Your task to perform on an android device: turn off smart reply in the gmail app Image 0: 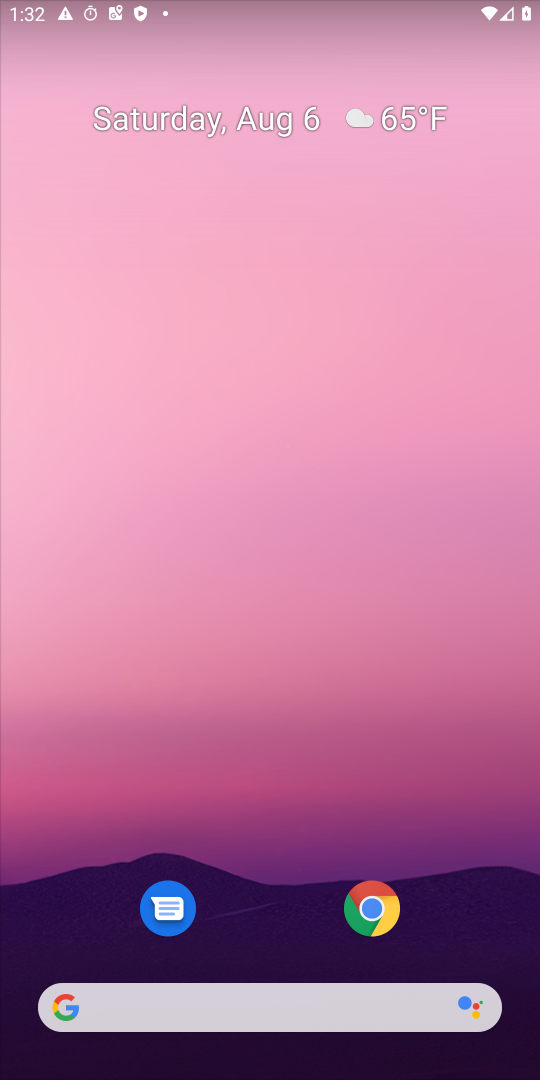
Step 0: click (324, 156)
Your task to perform on an android device: turn off smart reply in the gmail app Image 1: 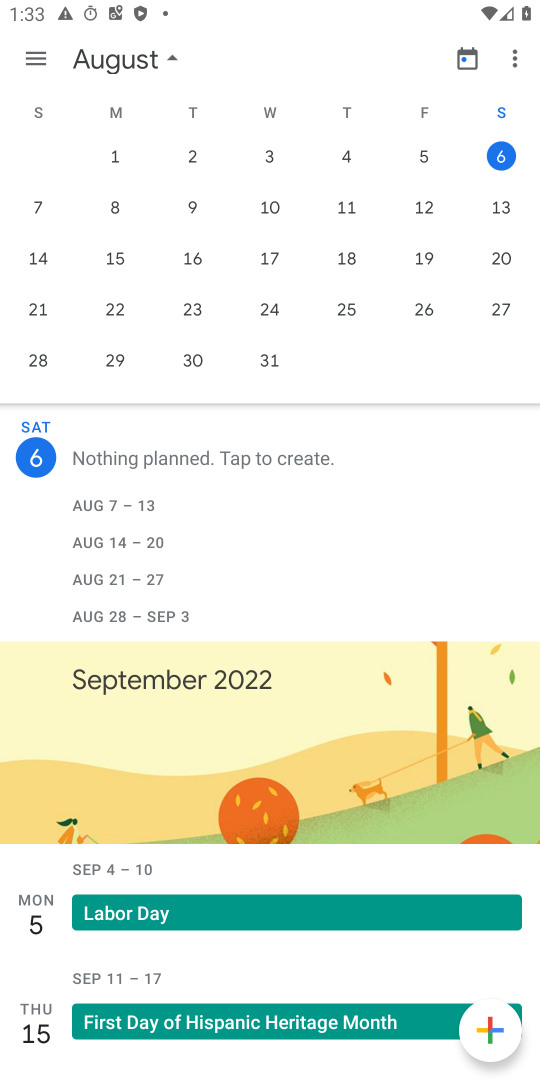
Step 1: press home button
Your task to perform on an android device: turn off smart reply in the gmail app Image 2: 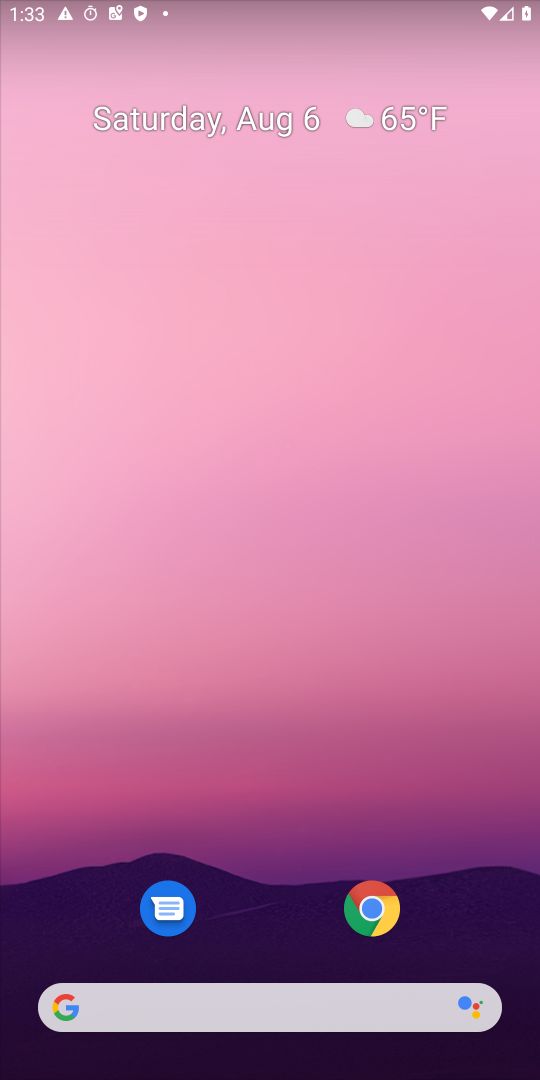
Step 2: drag from (295, 767) to (330, 134)
Your task to perform on an android device: turn off smart reply in the gmail app Image 3: 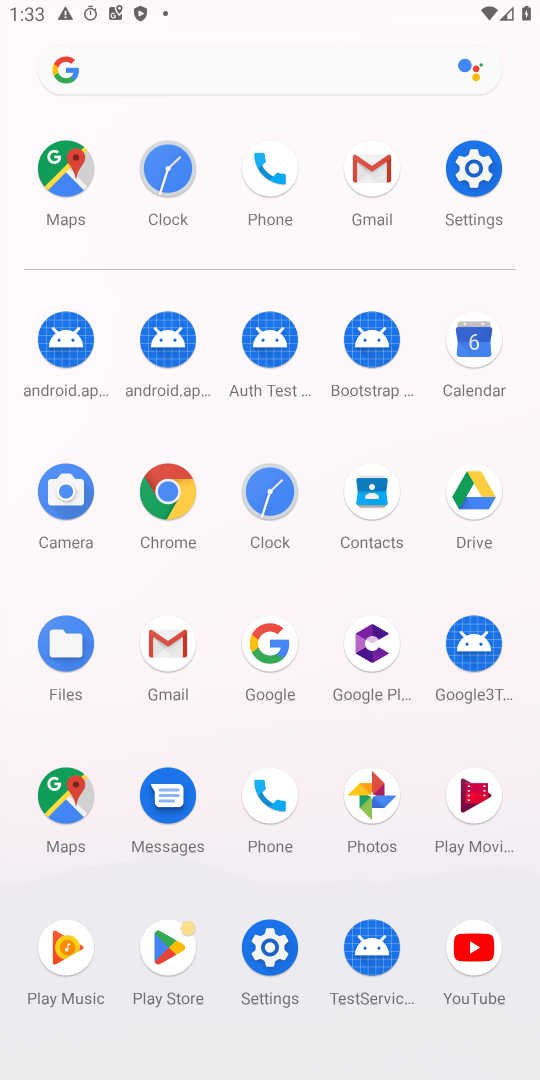
Step 3: click (366, 185)
Your task to perform on an android device: turn off smart reply in the gmail app Image 4: 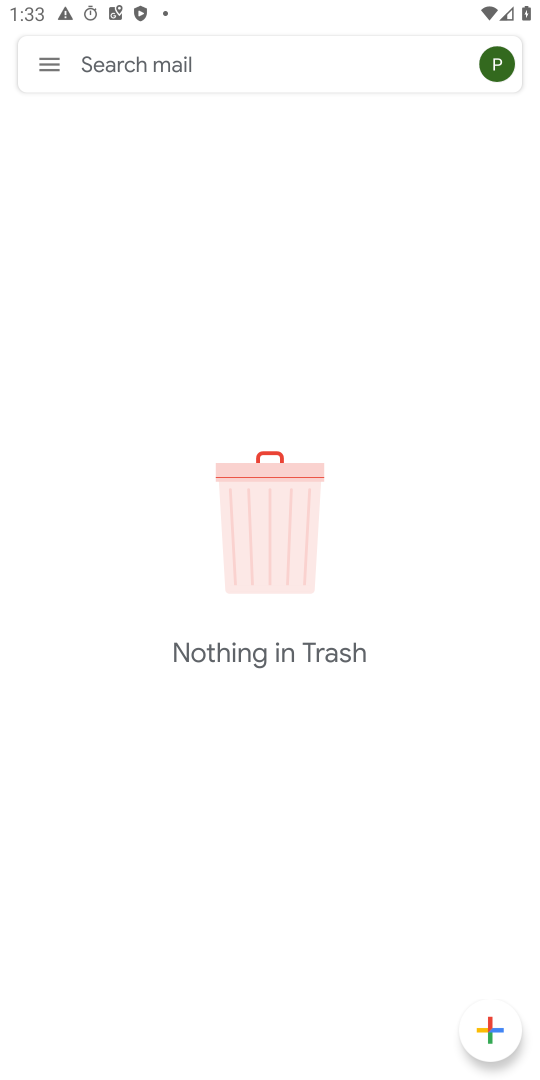
Step 4: click (37, 63)
Your task to perform on an android device: turn off smart reply in the gmail app Image 5: 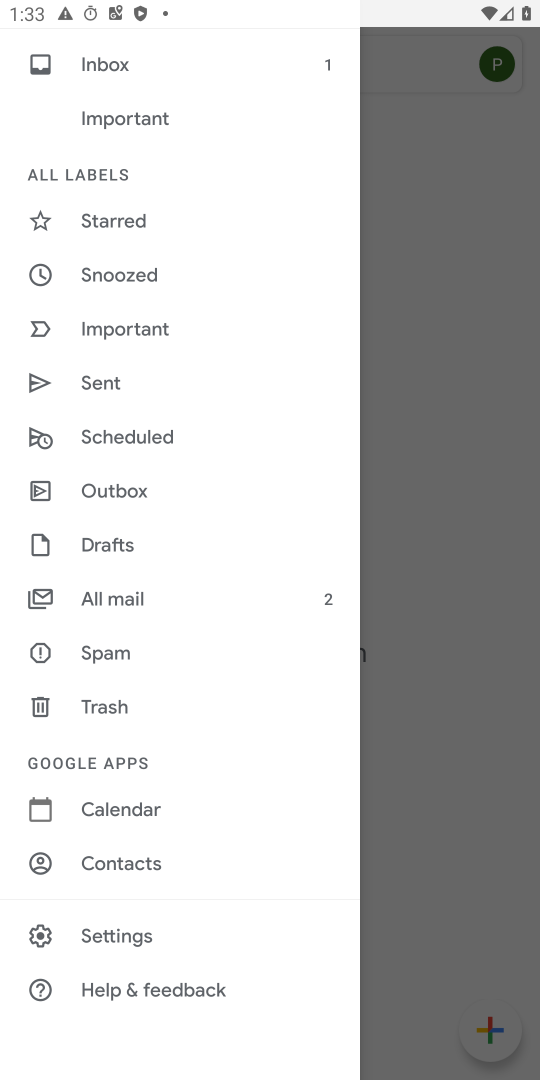
Step 5: click (130, 928)
Your task to perform on an android device: turn off smart reply in the gmail app Image 6: 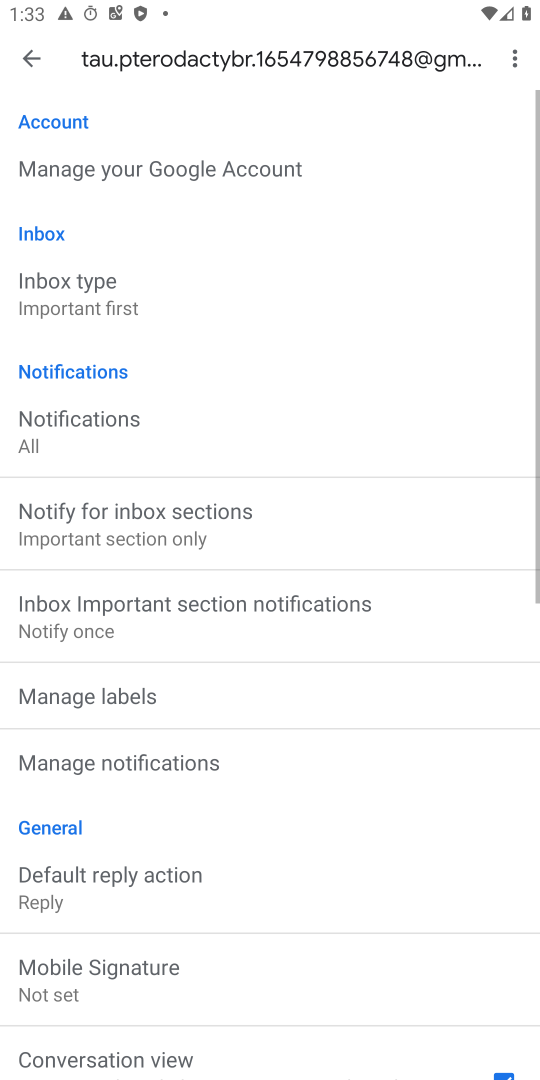
Step 6: drag from (130, 928) to (98, 607)
Your task to perform on an android device: turn off smart reply in the gmail app Image 7: 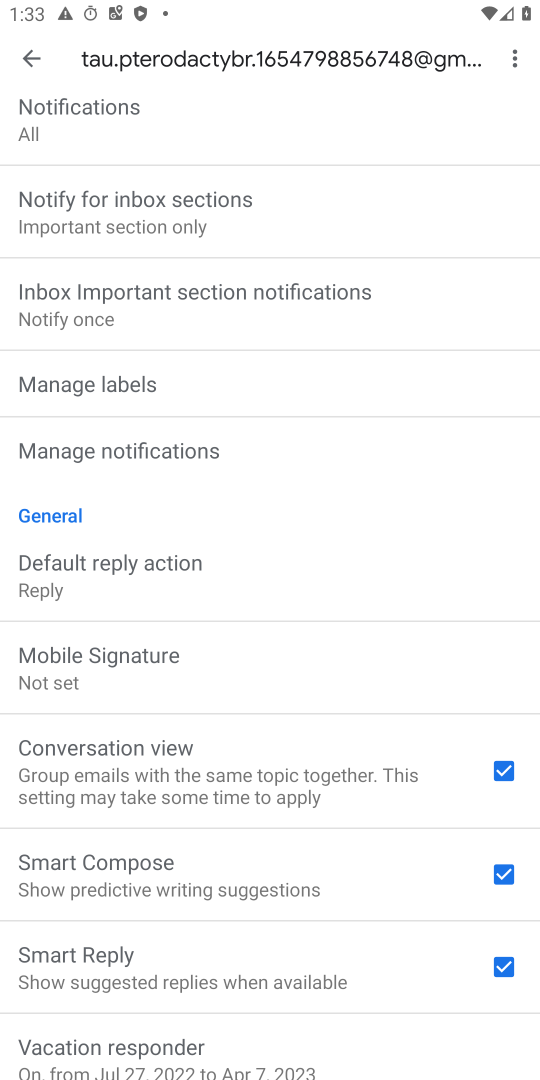
Step 7: click (457, 981)
Your task to perform on an android device: turn off smart reply in the gmail app Image 8: 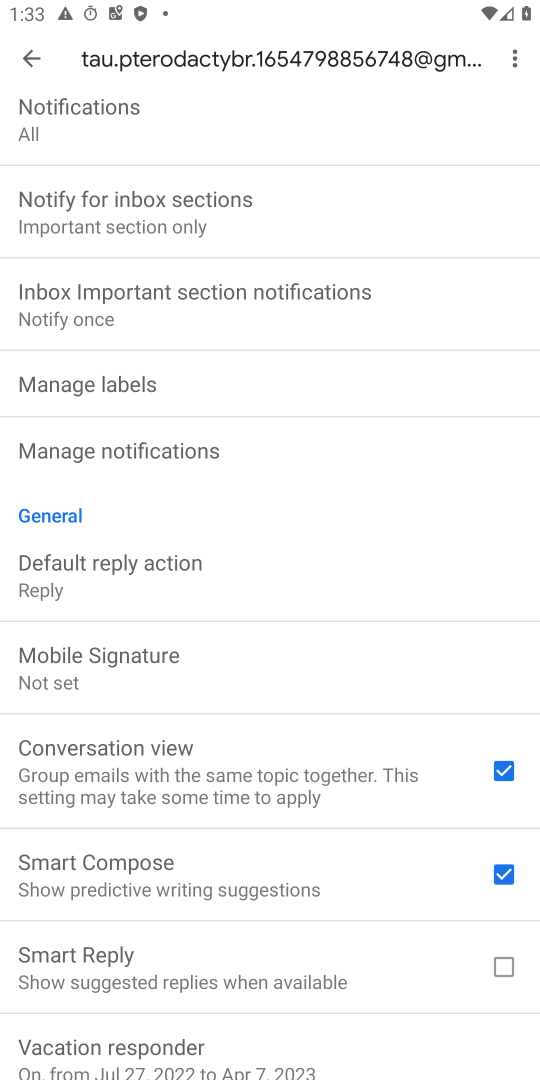
Step 8: task complete